Your task to perform on an android device: see tabs open on other devices in the chrome app Image 0: 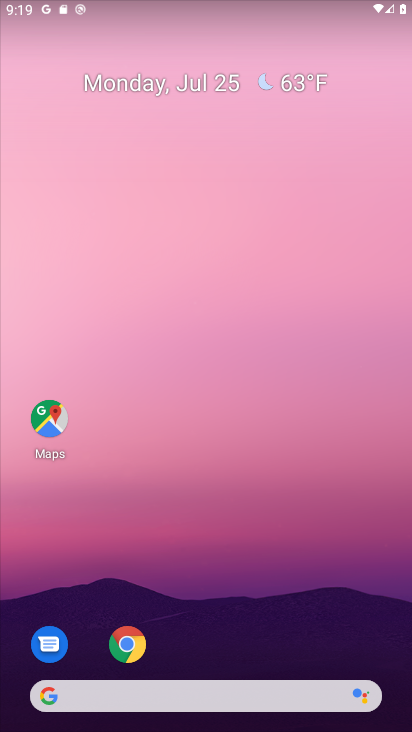
Step 0: drag from (228, 637) to (222, 212)
Your task to perform on an android device: see tabs open on other devices in the chrome app Image 1: 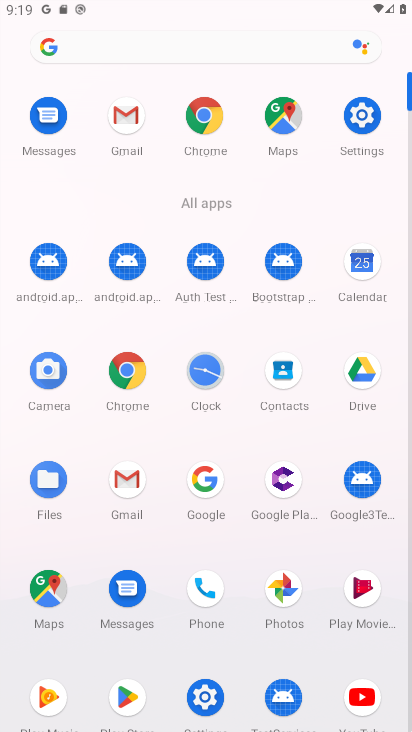
Step 1: click (220, 123)
Your task to perform on an android device: see tabs open on other devices in the chrome app Image 2: 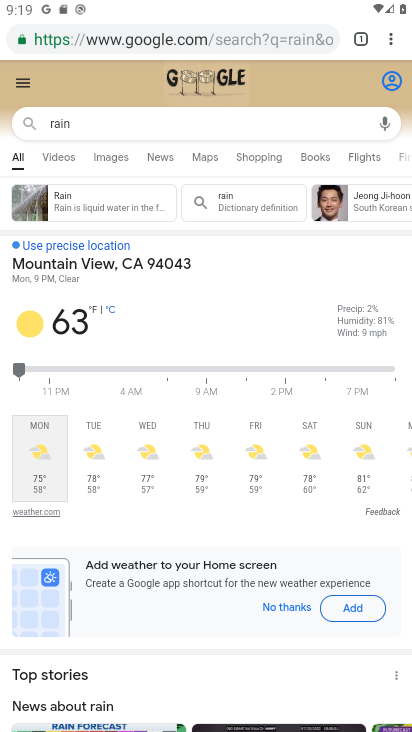
Step 2: drag from (398, 45) to (250, 71)
Your task to perform on an android device: see tabs open on other devices in the chrome app Image 3: 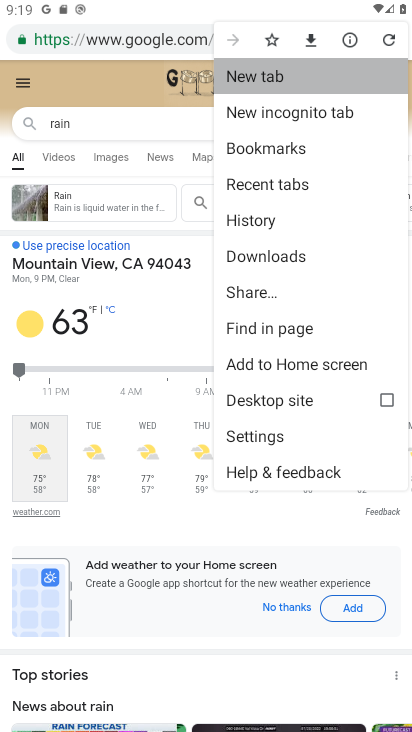
Step 3: click (250, 71)
Your task to perform on an android device: see tabs open on other devices in the chrome app Image 4: 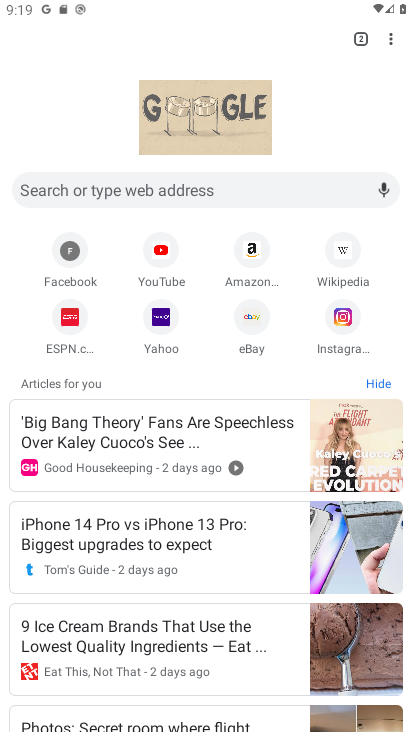
Step 4: task complete